Your task to perform on an android device: turn off data saver in the chrome app Image 0: 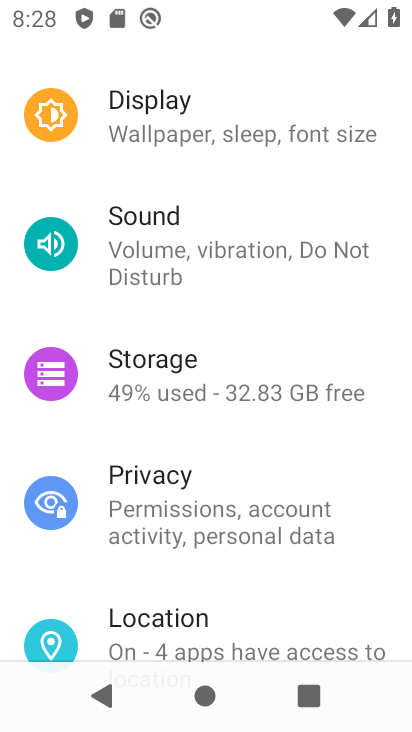
Step 0: press back button
Your task to perform on an android device: turn off data saver in the chrome app Image 1: 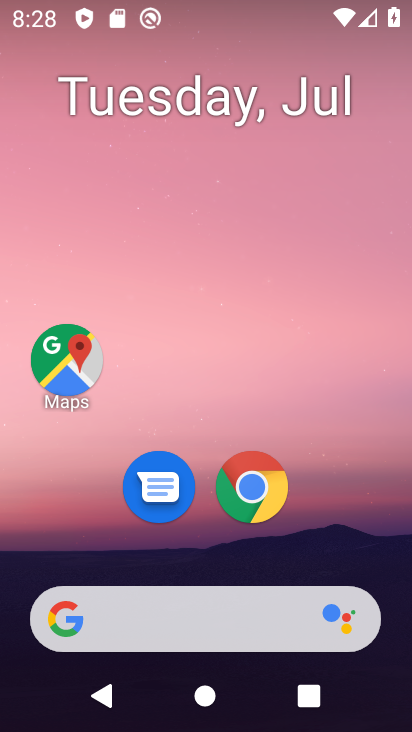
Step 1: click (237, 456)
Your task to perform on an android device: turn off data saver in the chrome app Image 2: 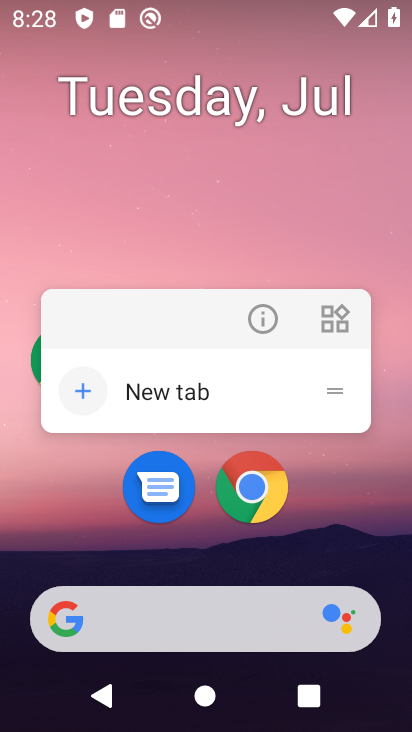
Step 2: click (266, 490)
Your task to perform on an android device: turn off data saver in the chrome app Image 3: 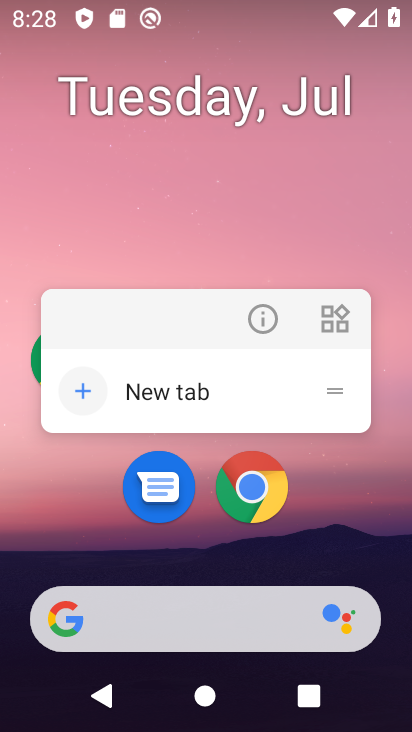
Step 3: click (255, 488)
Your task to perform on an android device: turn off data saver in the chrome app Image 4: 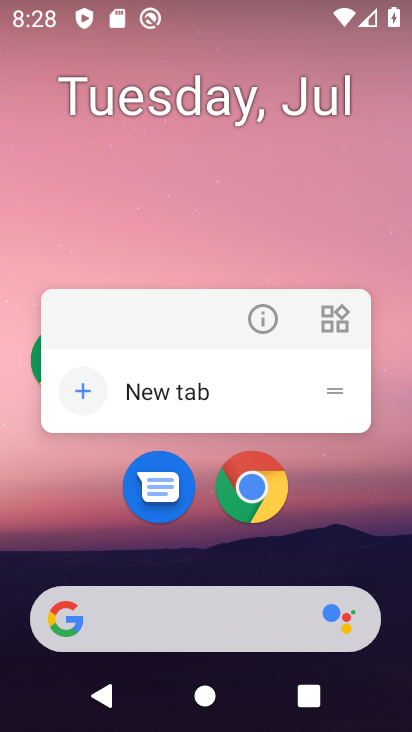
Step 4: click (254, 487)
Your task to perform on an android device: turn off data saver in the chrome app Image 5: 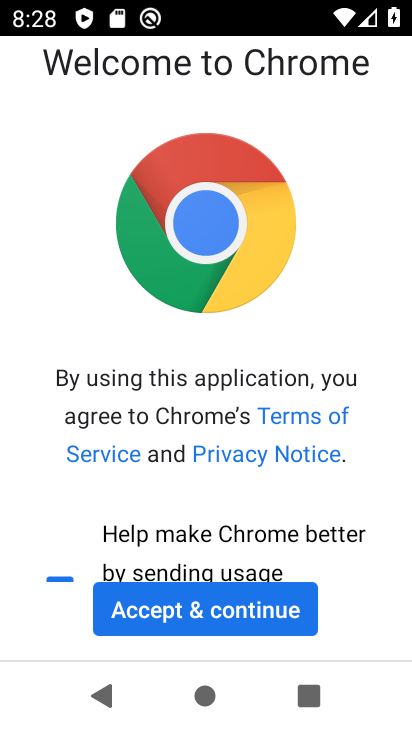
Step 5: click (193, 608)
Your task to perform on an android device: turn off data saver in the chrome app Image 6: 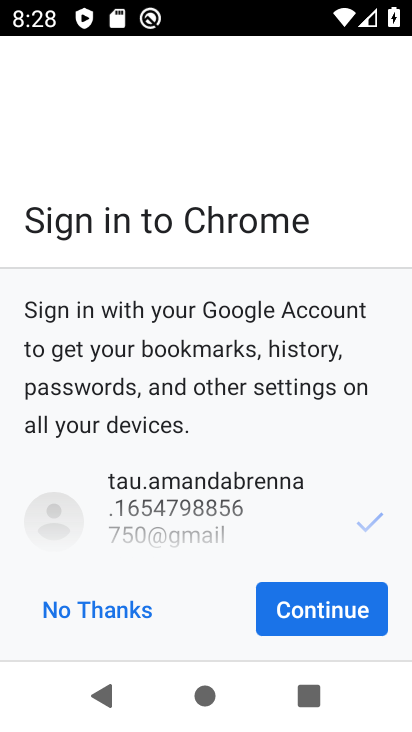
Step 6: click (290, 626)
Your task to perform on an android device: turn off data saver in the chrome app Image 7: 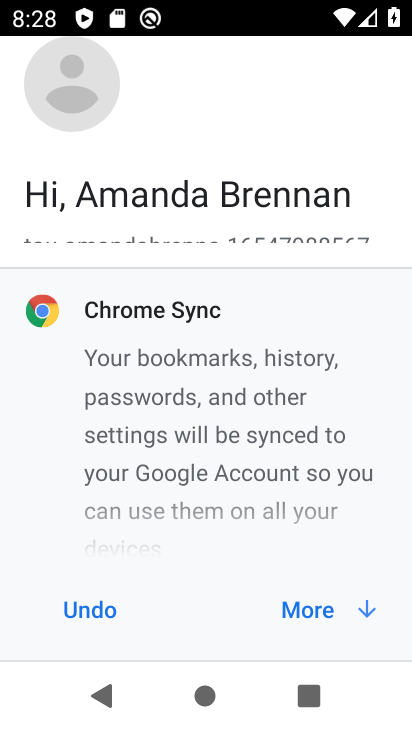
Step 7: click (286, 616)
Your task to perform on an android device: turn off data saver in the chrome app Image 8: 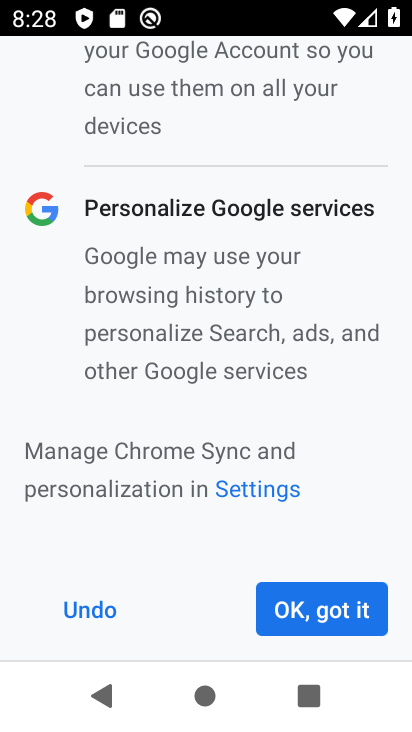
Step 8: click (282, 609)
Your task to perform on an android device: turn off data saver in the chrome app Image 9: 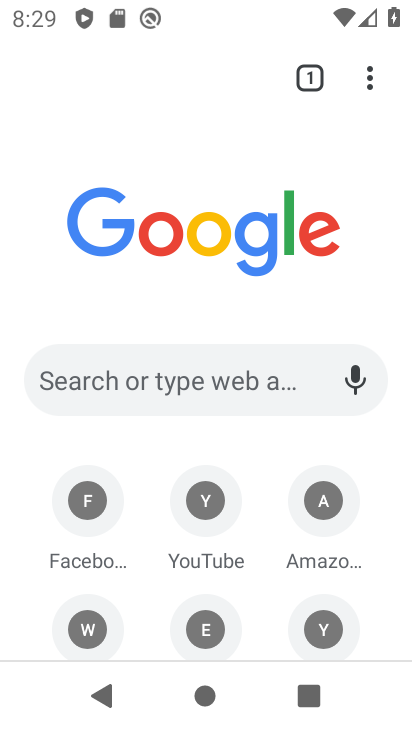
Step 9: drag from (365, 82) to (117, 543)
Your task to perform on an android device: turn off data saver in the chrome app Image 10: 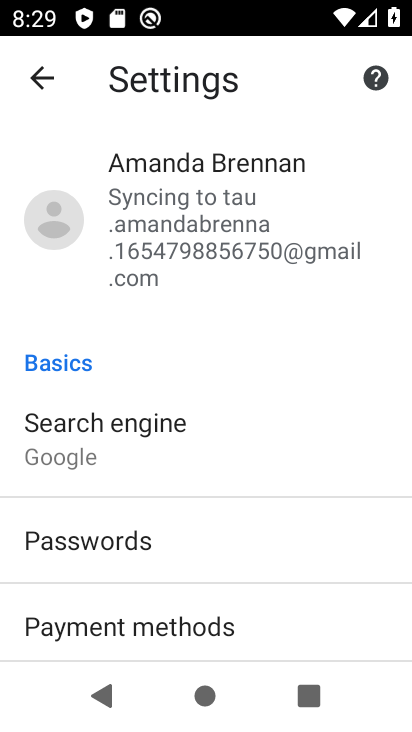
Step 10: drag from (184, 564) to (264, 75)
Your task to perform on an android device: turn off data saver in the chrome app Image 11: 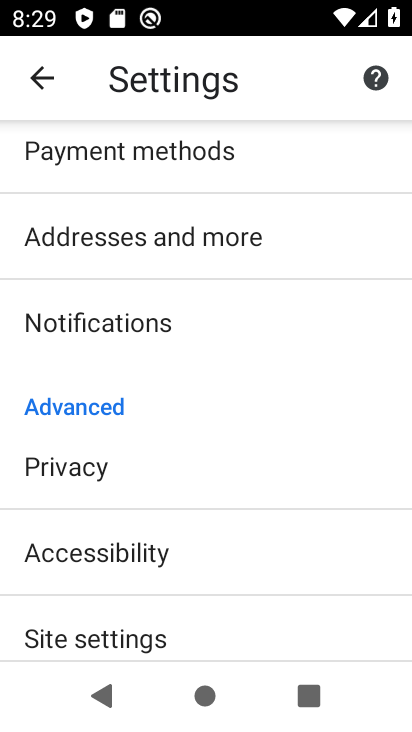
Step 11: drag from (124, 645) to (228, 165)
Your task to perform on an android device: turn off data saver in the chrome app Image 12: 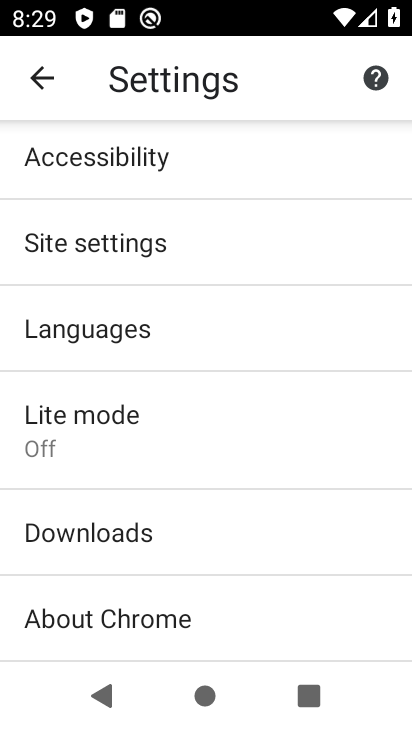
Step 12: click (123, 441)
Your task to perform on an android device: turn off data saver in the chrome app Image 13: 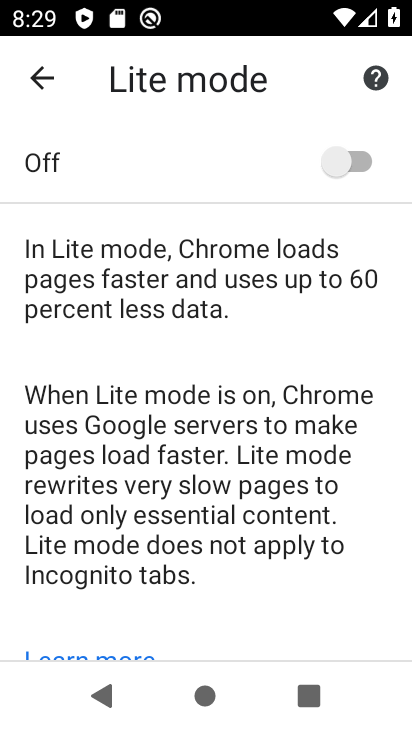
Step 13: task complete